Your task to perform on an android device: Go to CNN.com Image 0: 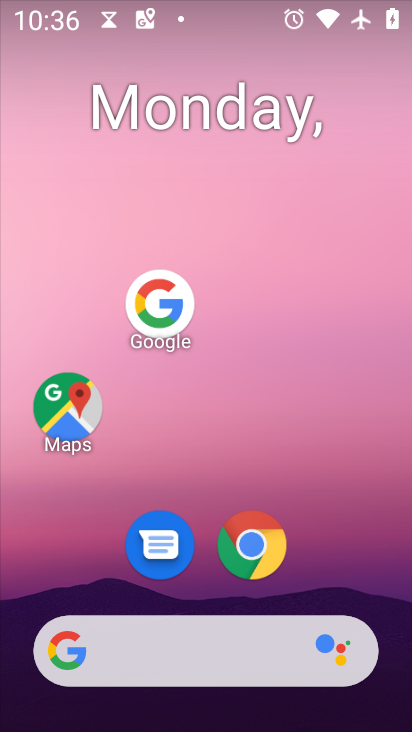
Step 0: press home button
Your task to perform on an android device: Go to CNN.com Image 1: 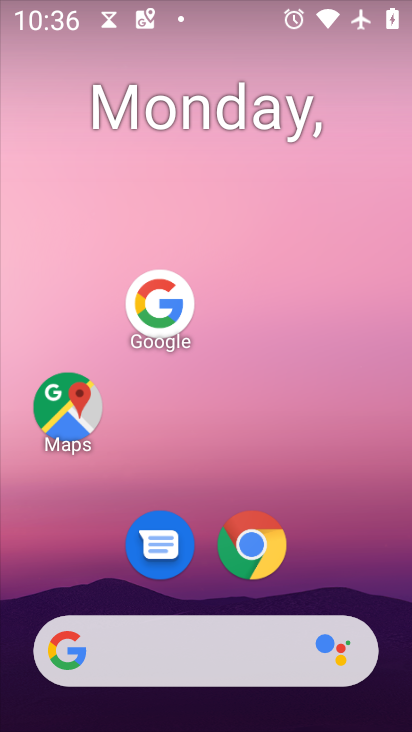
Step 1: click (247, 552)
Your task to perform on an android device: Go to CNN.com Image 2: 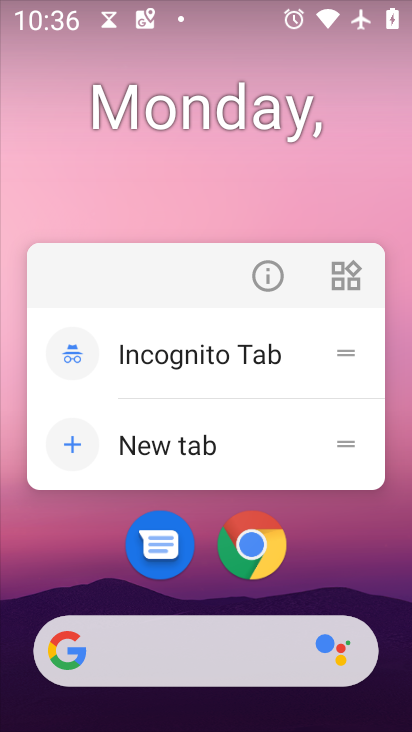
Step 2: click (264, 561)
Your task to perform on an android device: Go to CNN.com Image 3: 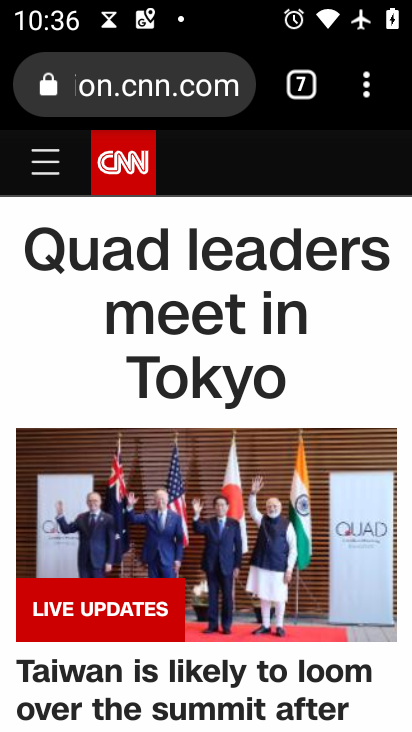
Step 3: task complete